Your task to perform on an android device: Go to CNN.com Image 0: 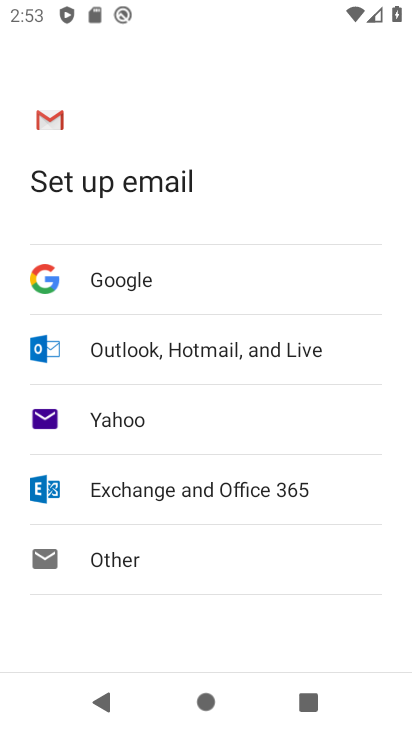
Step 0: press home button
Your task to perform on an android device: Go to CNN.com Image 1: 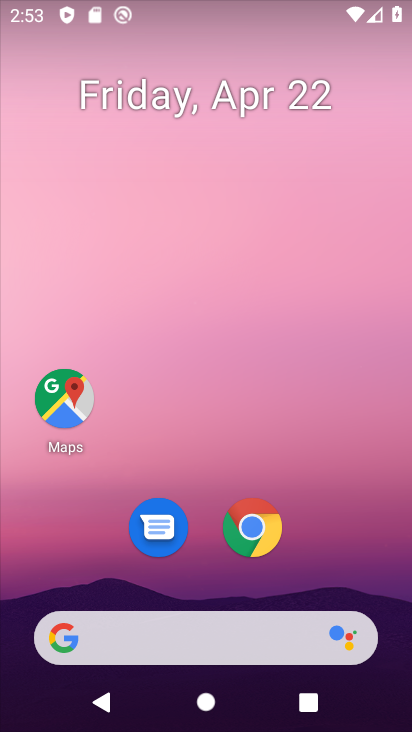
Step 1: drag from (381, 613) to (297, 101)
Your task to perform on an android device: Go to CNN.com Image 2: 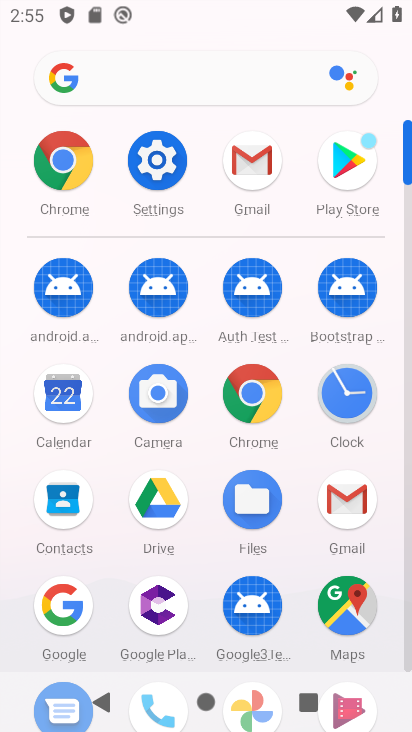
Step 2: click (239, 412)
Your task to perform on an android device: Go to CNN.com Image 3: 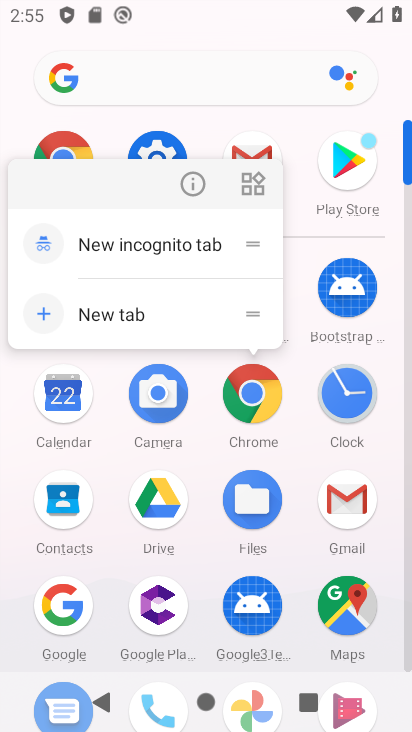
Step 3: click (243, 407)
Your task to perform on an android device: Go to CNN.com Image 4: 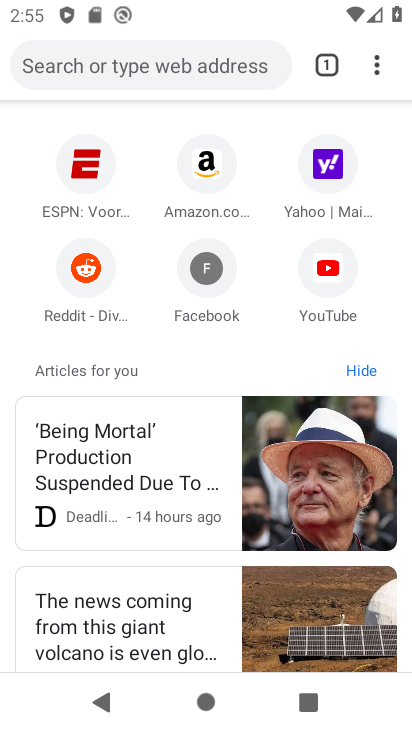
Step 4: click (118, 65)
Your task to perform on an android device: Go to CNN.com Image 5: 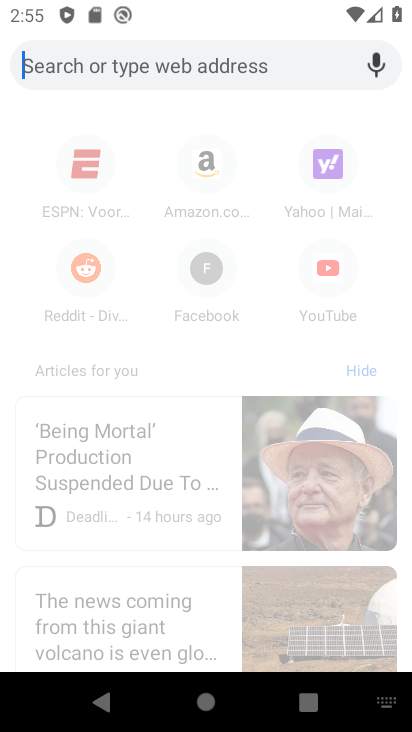
Step 5: type "cnn.com"
Your task to perform on an android device: Go to CNN.com Image 6: 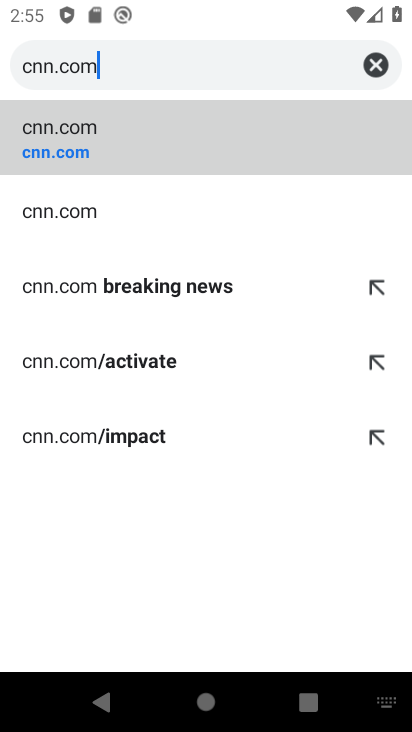
Step 6: click (323, 137)
Your task to perform on an android device: Go to CNN.com Image 7: 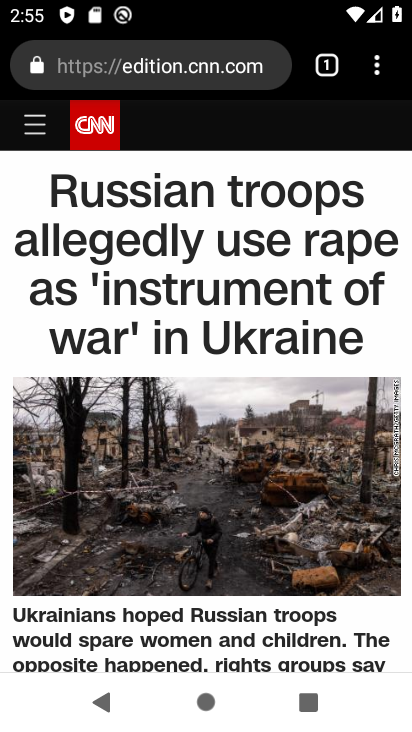
Step 7: task complete